Your task to perform on an android device: Go to notification settings Image 0: 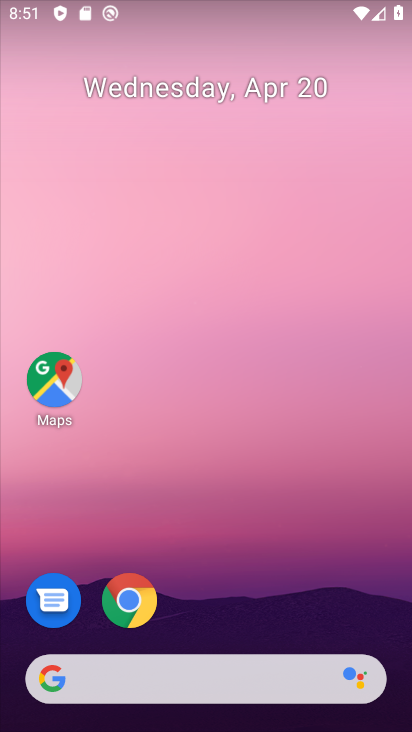
Step 0: drag from (219, 678) to (174, 104)
Your task to perform on an android device: Go to notification settings Image 1: 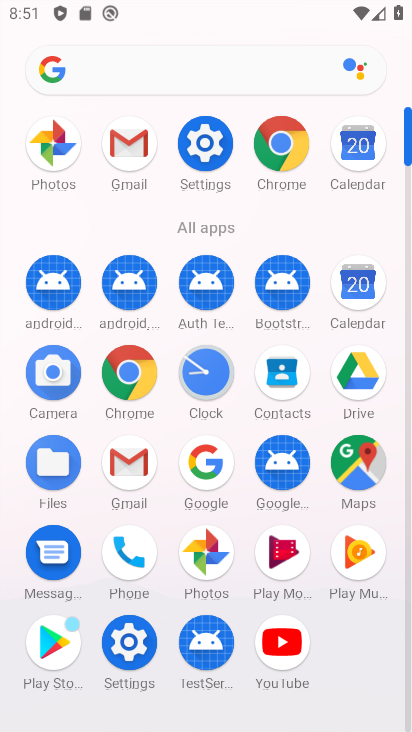
Step 1: click (199, 164)
Your task to perform on an android device: Go to notification settings Image 2: 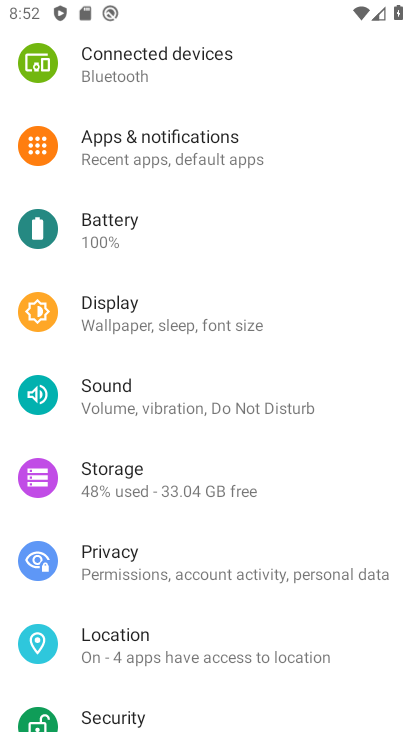
Step 2: click (141, 144)
Your task to perform on an android device: Go to notification settings Image 3: 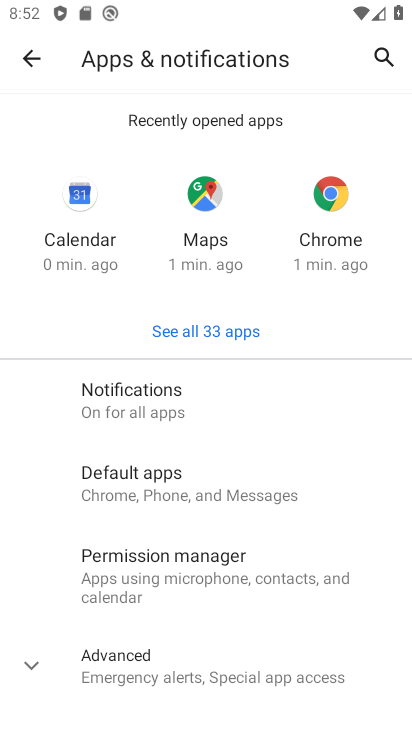
Step 3: task complete